Your task to perform on an android device: Go to Reddit.com Image 0: 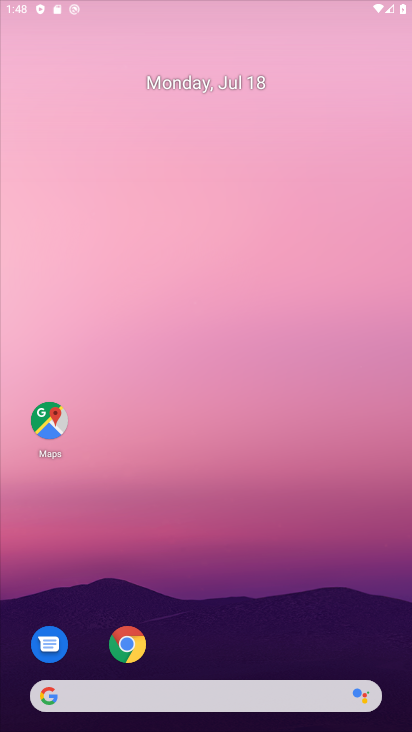
Step 0: drag from (268, 621) to (215, 293)
Your task to perform on an android device: Go to Reddit.com Image 1: 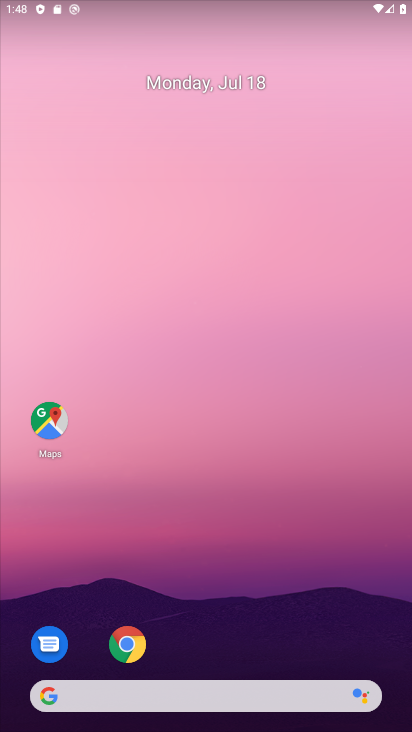
Step 1: drag from (249, 700) to (217, 212)
Your task to perform on an android device: Go to Reddit.com Image 2: 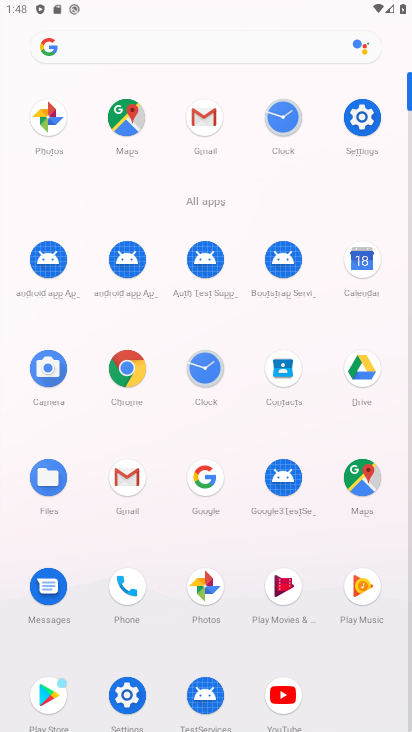
Step 2: click (125, 373)
Your task to perform on an android device: Go to Reddit.com Image 3: 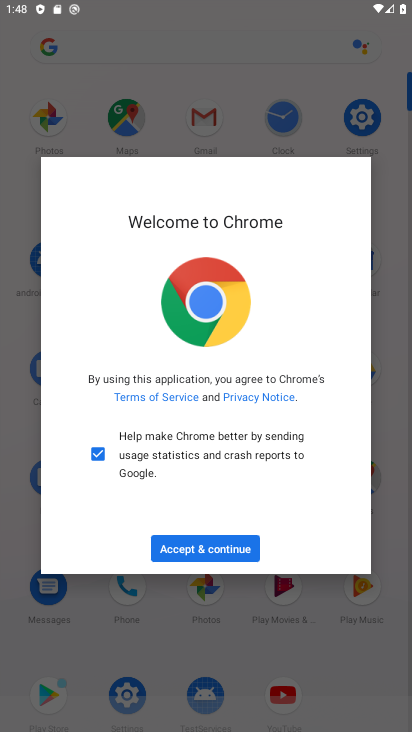
Step 3: click (197, 547)
Your task to perform on an android device: Go to Reddit.com Image 4: 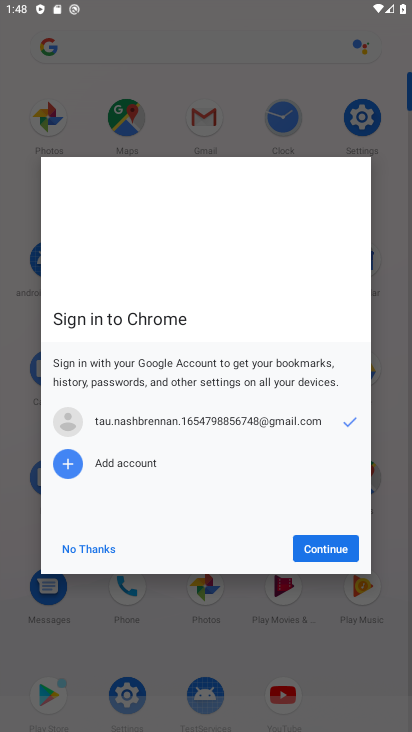
Step 4: click (324, 554)
Your task to perform on an android device: Go to Reddit.com Image 5: 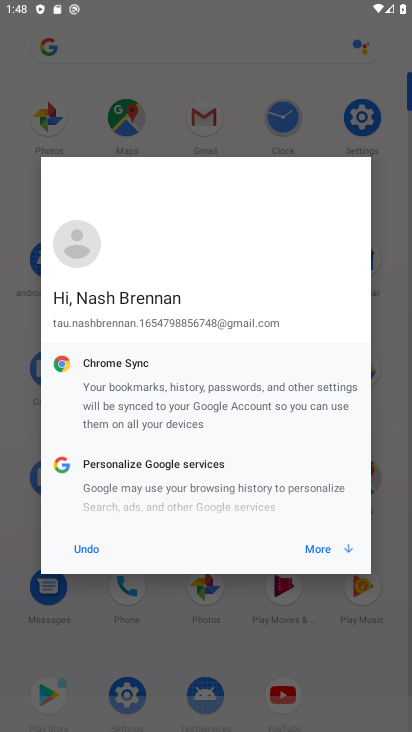
Step 5: click (321, 541)
Your task to perform on an android device: Go to Reddit.com Image 6: 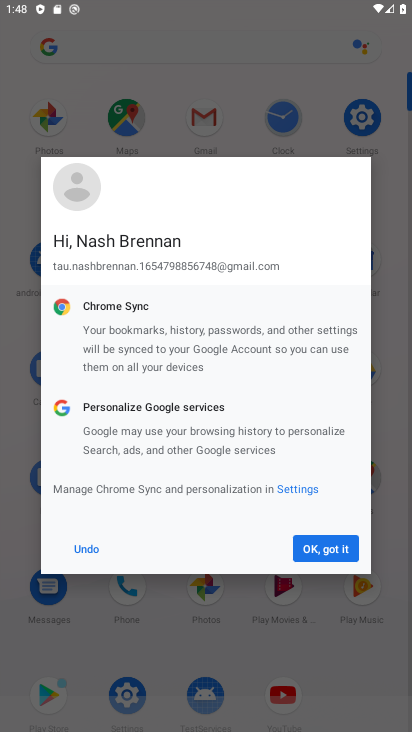
Step 6: click (328, 550)
Your task to perform on an android device: Go to Reddit.com Image 7: 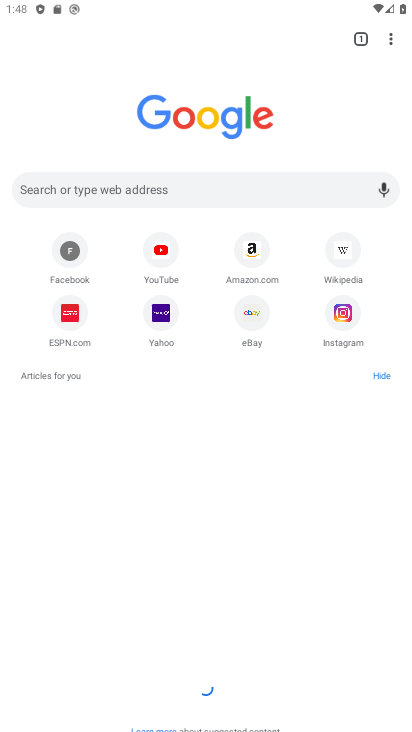
Step 7: click (81, 196)
Your task to perform on an android device: Go to Reddit.com Image 8: 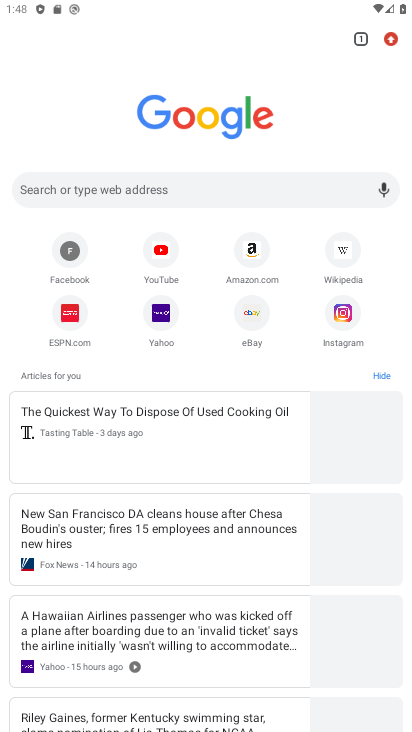
Step 8: click (81, 196)
Your task to perform on an android device: Go to Reddit.com Image 9: 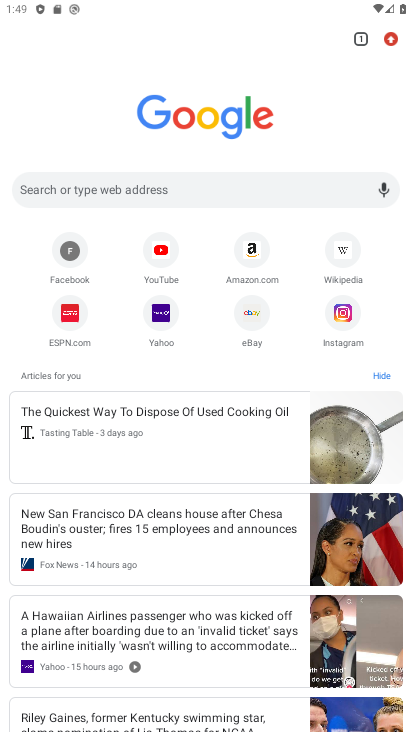
Step 9: click (70, 185)
Your task to perform on an android device: Go to Reddit.com Image 10: 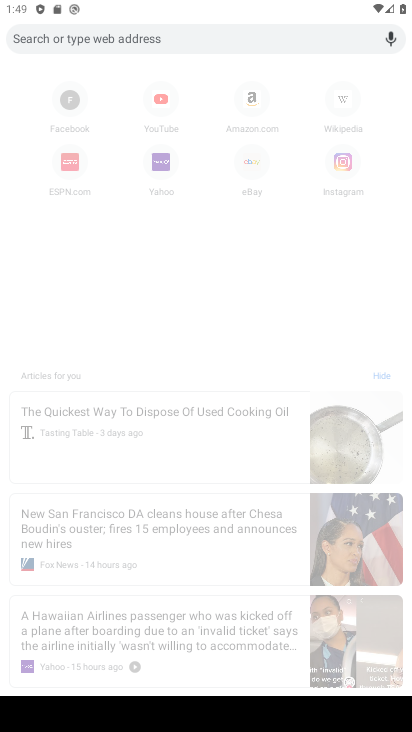
Step 10: type "reddit.com"
Your task to perform on an android device: Go to Reddit.com Image 11: 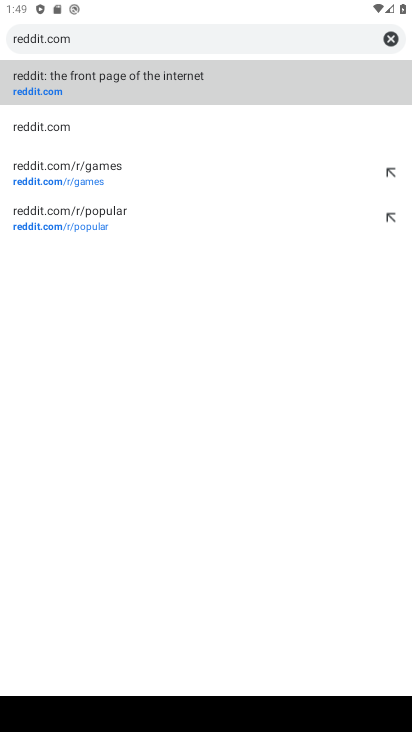
Step 11: click (43, 90)
Your task to perform on an android device: Go to Reddit.com Image 12: 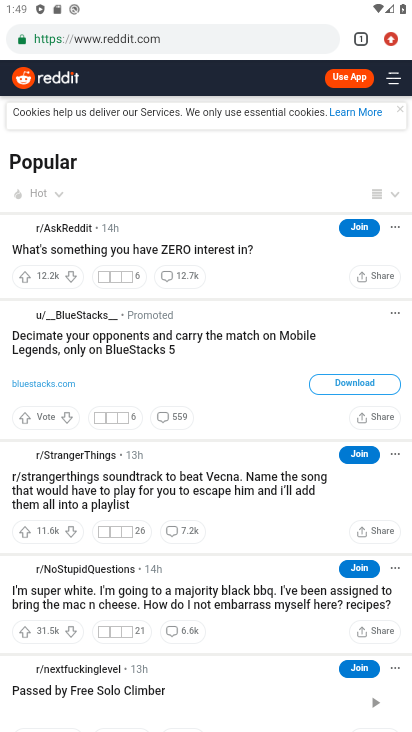
Step 12: task complete